Your task to perform on an android device: visit the assistant section in the google photos Image 0: 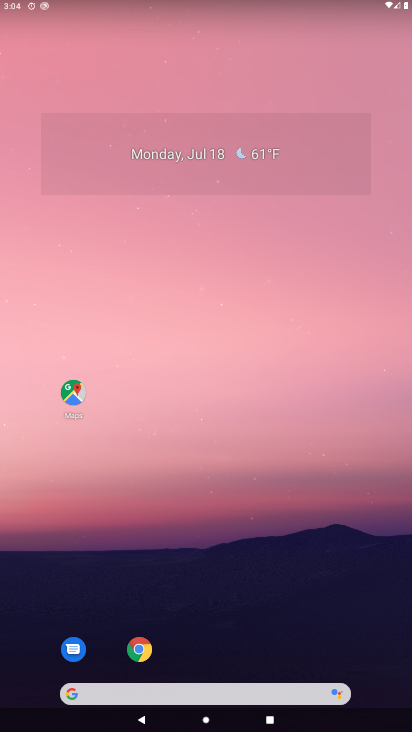
Step 0: drag from (63, 644) to (318, 182)
Your task to perform on an android device: visit the assistant section in the google photos Image 1: 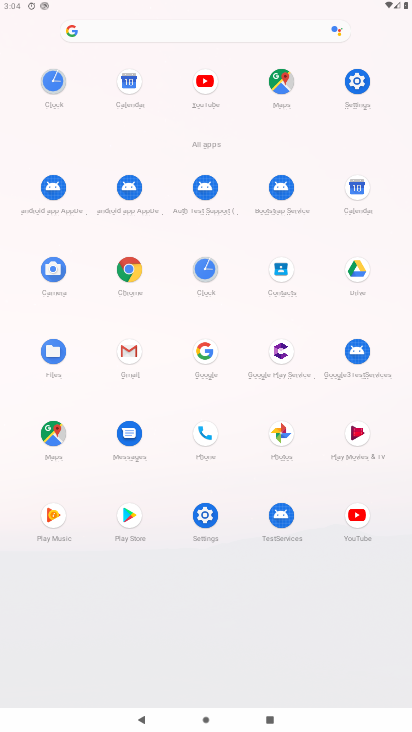
Step 1: click (279, 430)
Your task to perform on an android device: visit the assistant section in the google photos Image 2: 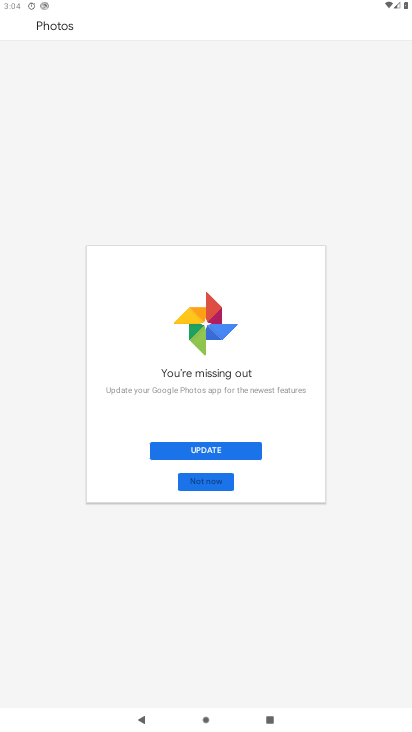
Step 2: click (203, 480)
Your task to perform on an android device: visit the assistant section in the google photos Image 3: 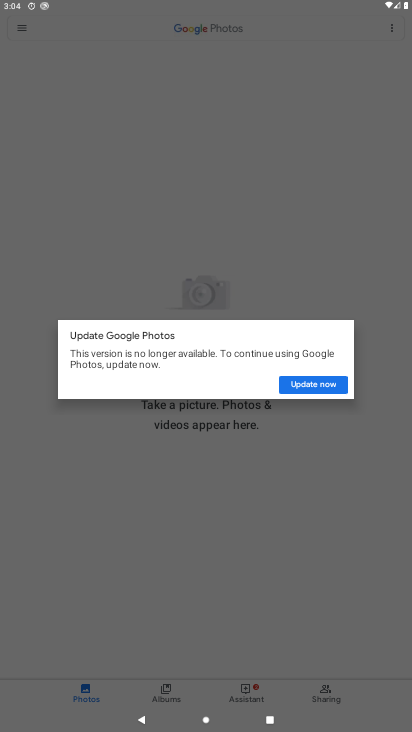
Step 3: click (313, 382)
Your task to perform on an android device: visit the assistant section in the google photos Image 4: 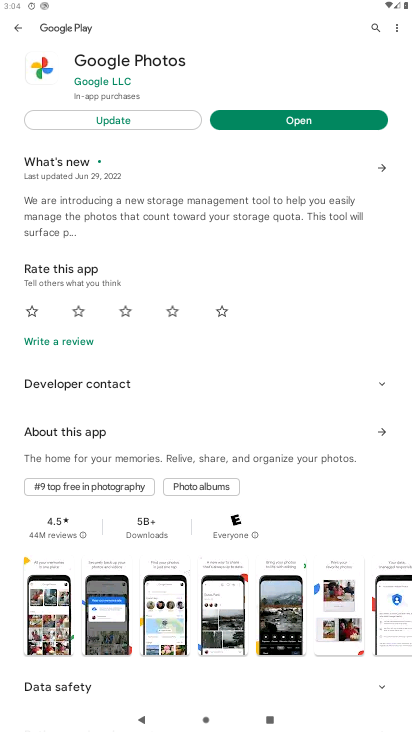
Step 4: click (310, 122)
Your task to perform on an android device: visit the assistant section in the google photos Image 5: 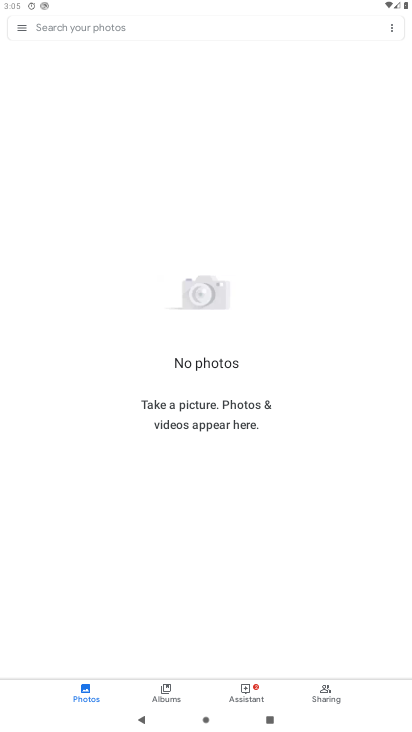
Step 5: click (241, 694)
Your task to perform on an android device: visit the assistant section in the google photos Image 6: 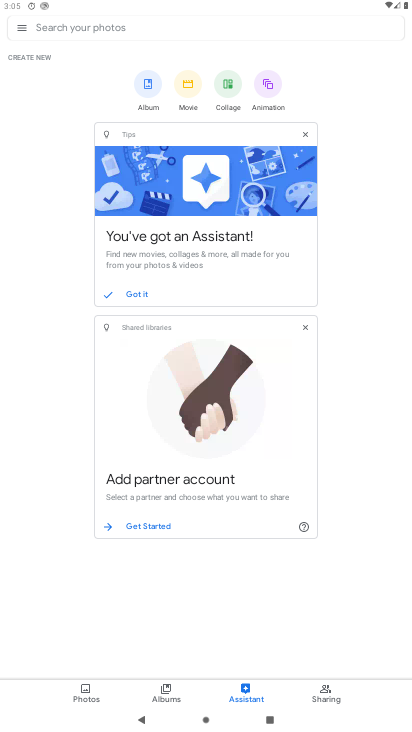
Step 6: task complete